Your task to perform on an android device: turn on the 12-hour format for clock Image 0: 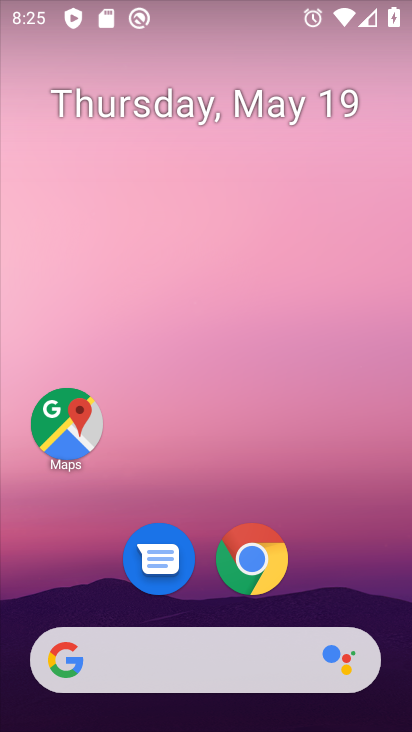
Step 0: press home button
Your task to perform on an android device: turn on the 12-hour format for clock Image 1: 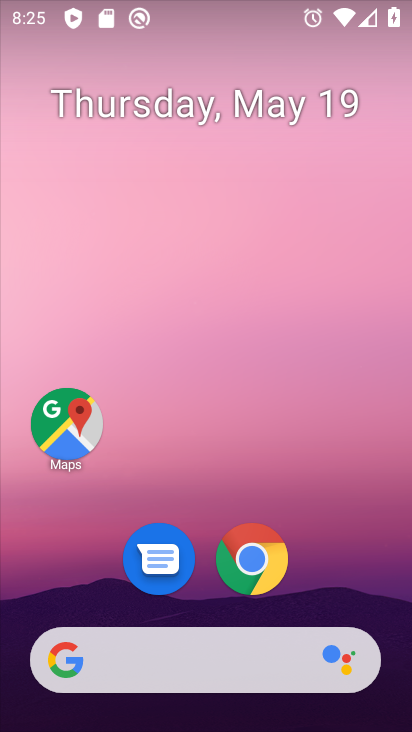
Step 1: drag from (367, 562) to (327, 263)
Your task to perform on an android device: turn on the 12-hour format for clock Image 2: 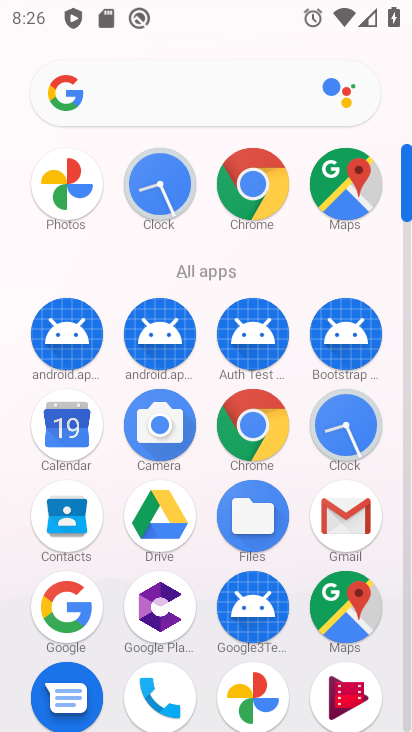
Step 2: click (405, 668)
Your task to perform on an android device: turn on the 12-hour format for clock Image 3: 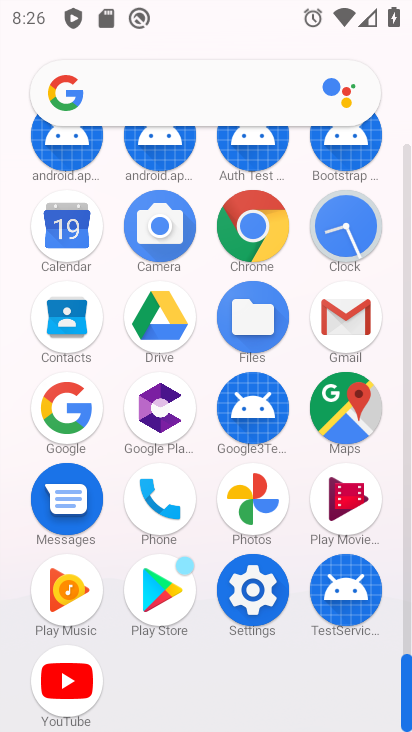
Step 3: click (338, 226)
Your task to perform on an android device: turn on the 12-hour format for clock Image 4: 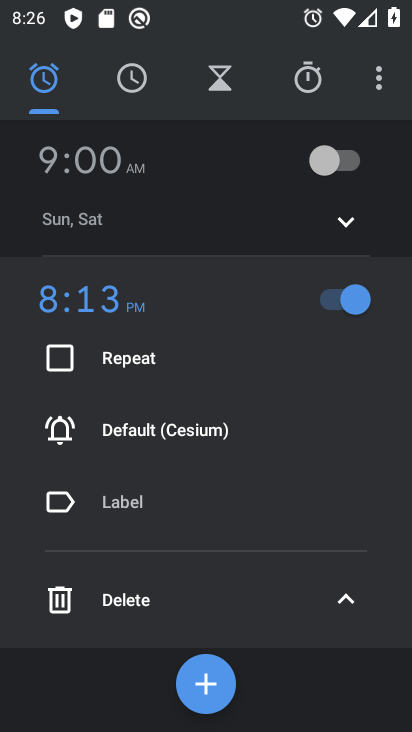
Step 4: click (383, 77)
Your task to perform on an android device: turn on the 12-hour format for clock Image 5: 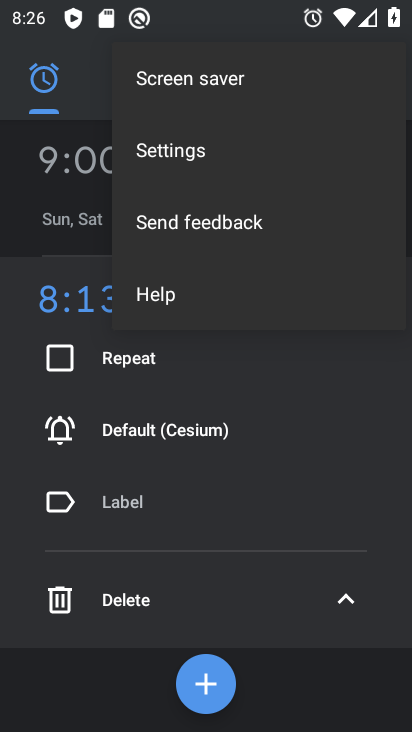
Step 5: click (223, 146)
Your task to perform on an android device: turn on the 12-hour format for clock Image 6: 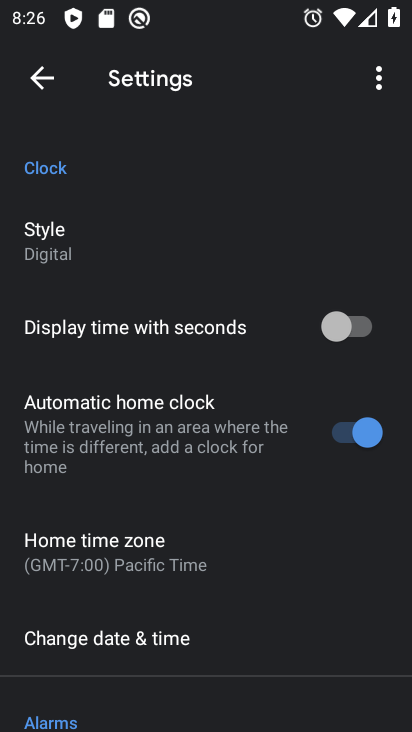
Step 6: click (159, 649)
Your task to perform on an android device: turn on the 12-hour format for clock Image 7: 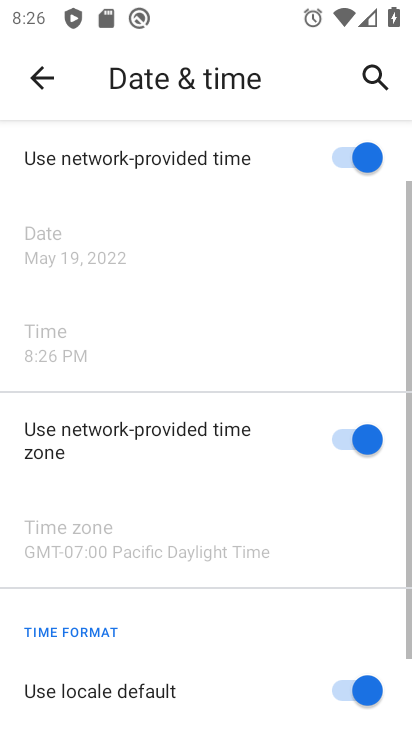
Step 7: drag from (159, 649) to (166, 317)
Your task to perform on an android device: turn on the 12-hour format for clock Image 8: 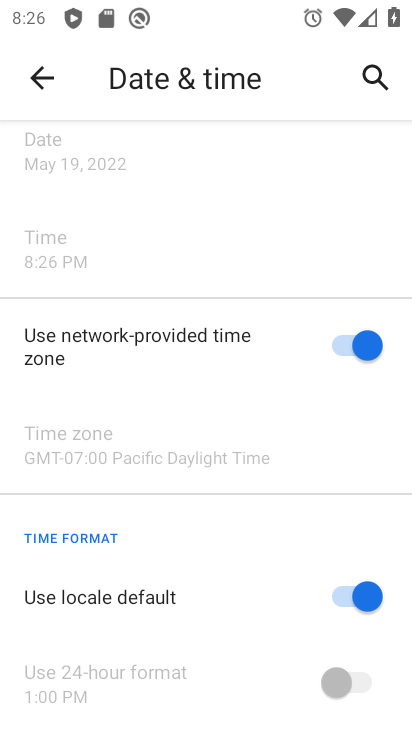
Step 8: click (325, 607)
Your task to perform on an android device: turn on the 12-hour format for clock Image 9: 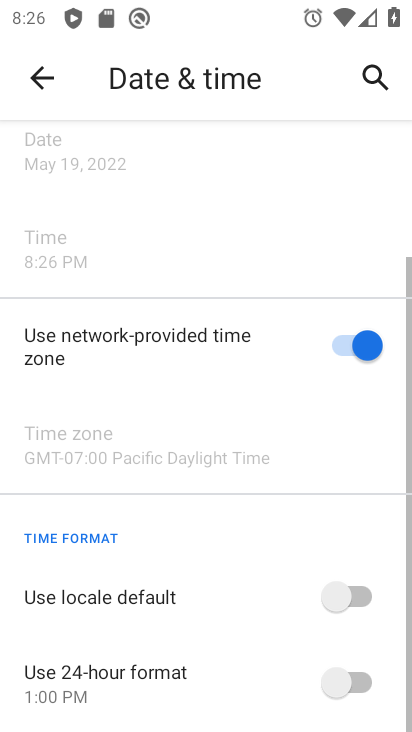
Step 9: click (337, 686)
Your task to perform on an android device: turn on the 12-hour format for clock Image 10: 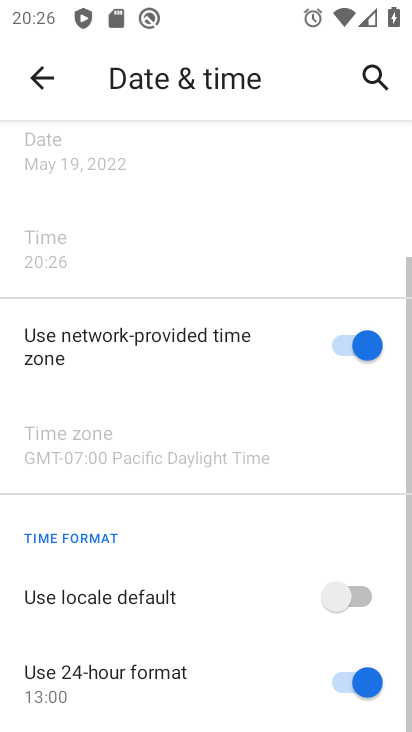
Step 10: task complete